Your task to perform on an android device: Show me popular videos on Youtube Image 0: 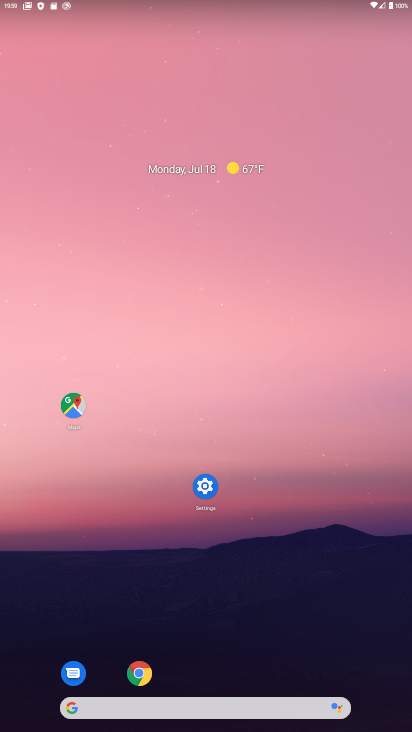
Step 0: drag from (229, 711) to (196, 254)
Your task to perform on an android device: Show me popular videos on Youtube Image 1: 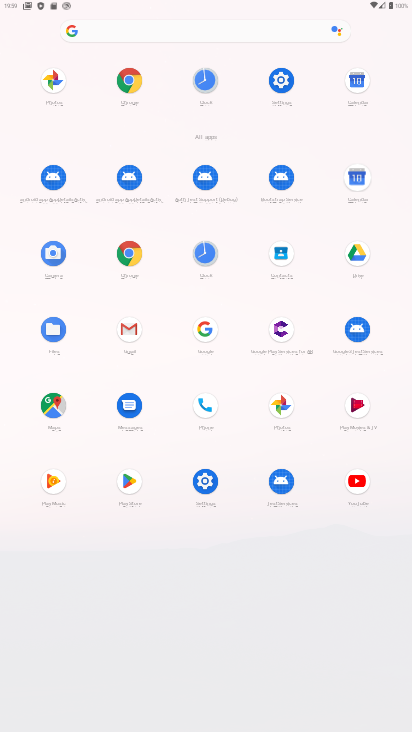
Step 1: click (362, 479)
Your task to perform on an android device: Show me popular videos on Youtube Image 2: 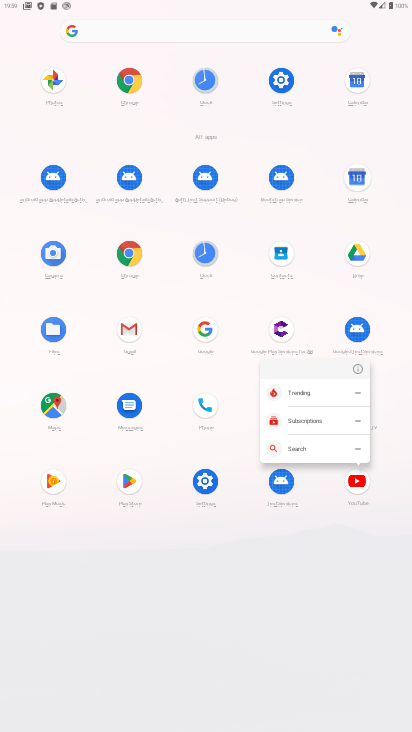
Step 2: click (358, 483)
Your task to perform on an android device: Show me popular videos on Youtube Image 3: 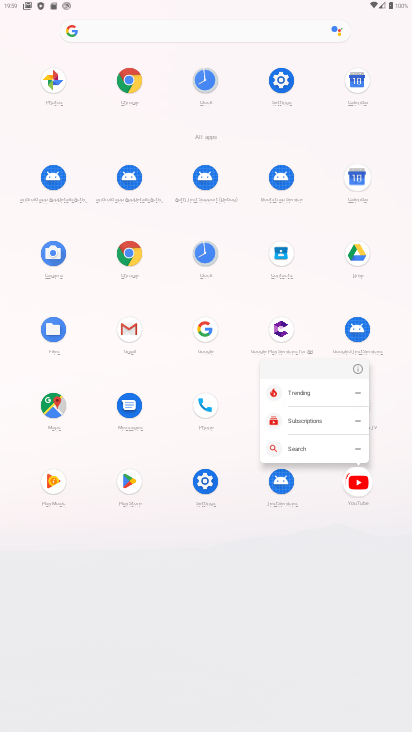
Step 3: click (358, 483)
Your task to perform on an android device: Show me popular videos on Youtube Image 4: 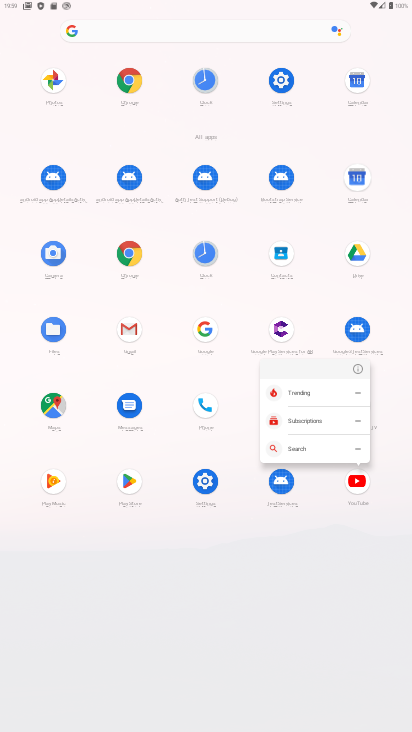
Step 4: click (355, 480)
Your task to perform on an android device: Show me popular videos on Youtube Image 5: 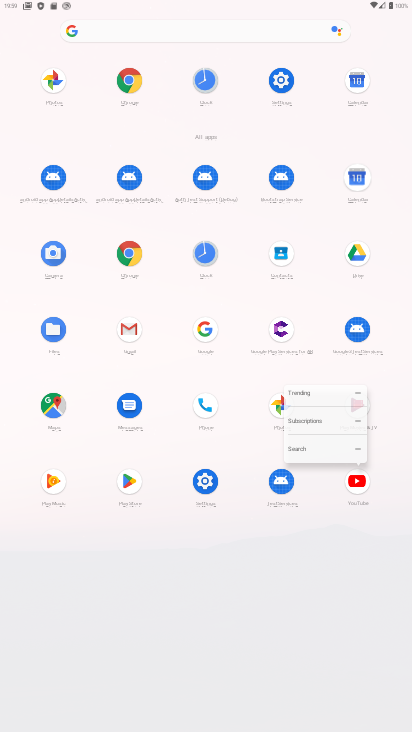
Step 5: click (354, 479)
Your task to perform on an android device: Show me popular videos on Youtube Image 6: 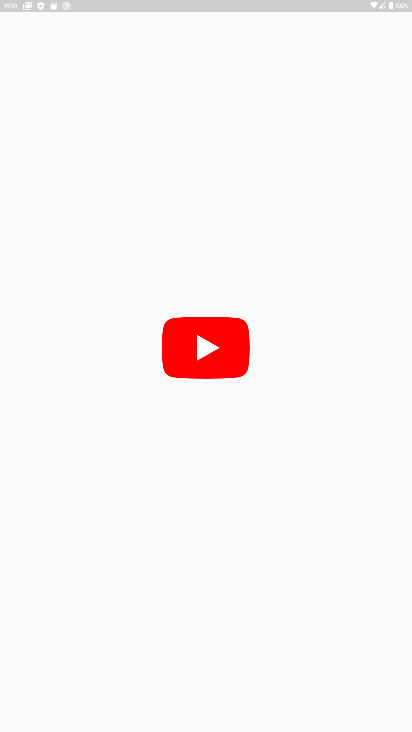
Step 6: click (355, 479)
Your task to perform on an android device: Show me popular videos on Youtube Image 7: 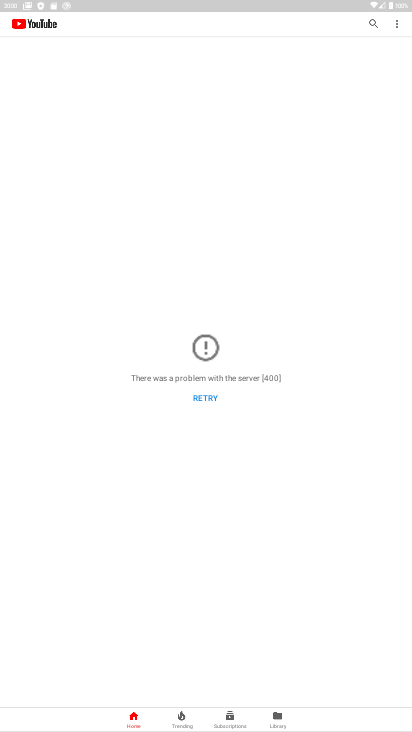
Step 7: task complete